Your task to perform on an android device: What's the weather today? Image 0: 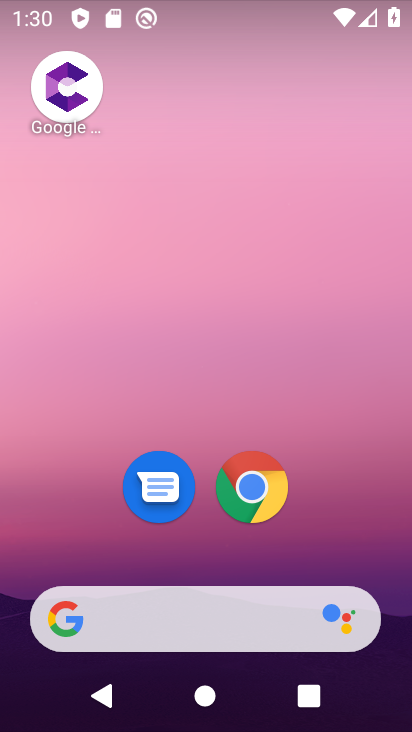
Step 0: click (67, 636)
Your task to perform on an android device: What's the weather today? Image 1: 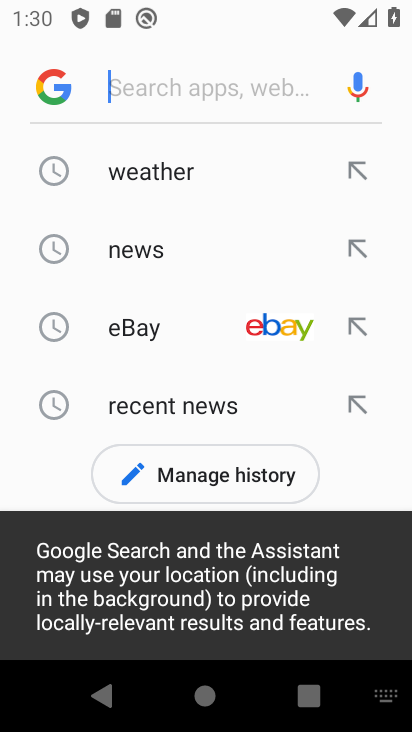
Step 1: click (55, 86)
Your task to perform on an android device: What's the weather today? Image 2: 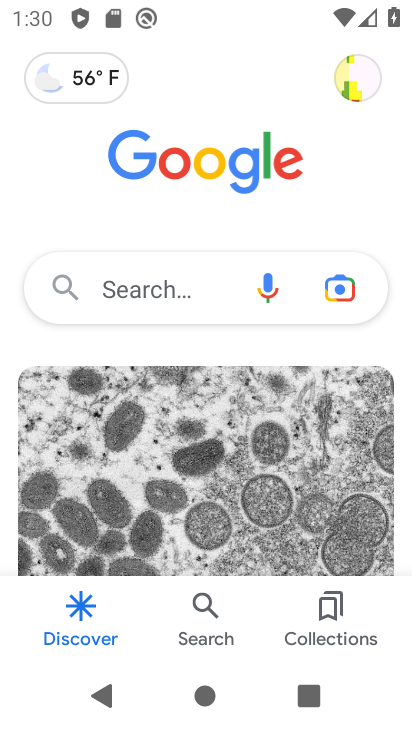
Step 2: click (74, 80)
Your task to perform on an android device: What's the weather today? Image 3: 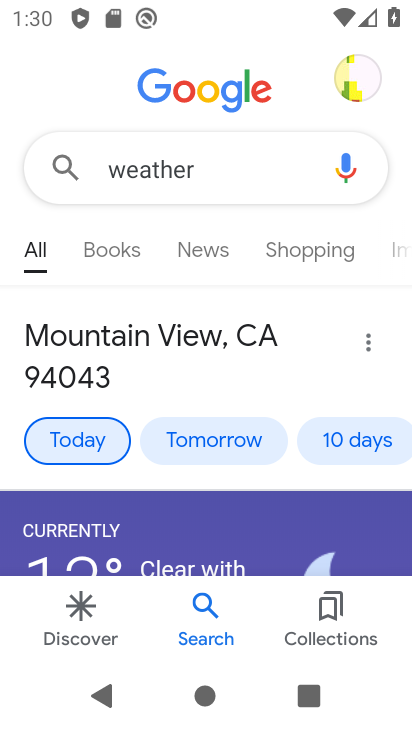
Step 3: task complete